Your task to perform on an android device: Do I have any events tomorrow? Image 0: 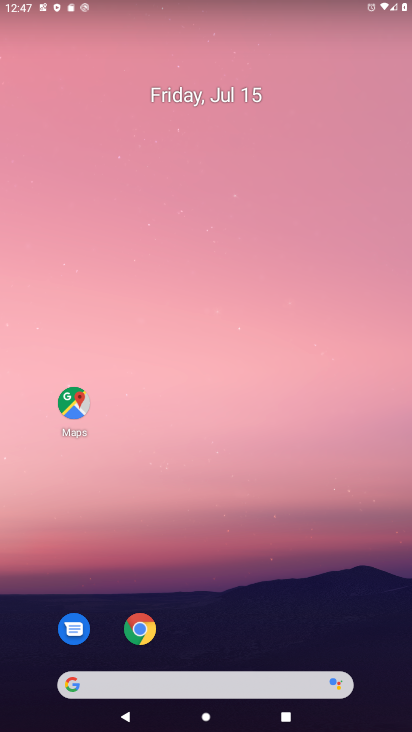
Step 0: press home button
Your task to perform on an android device: Do I have any events tomorrow? Image 1: 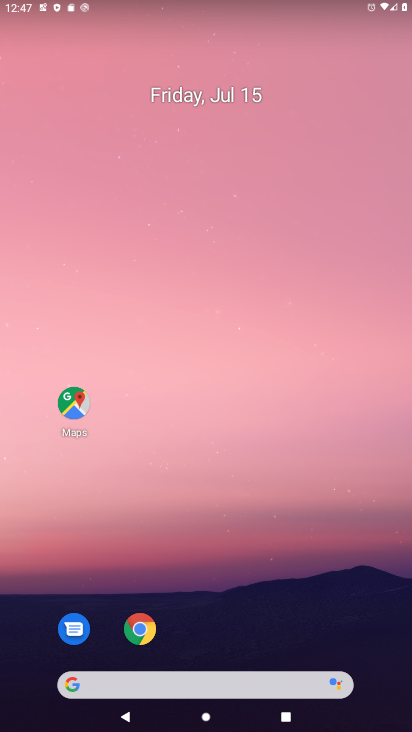
Step 1: drag from (247, 646) to (221, 191)
Your task to perform on an android device: Do I have any events tomorrow? Image 2: 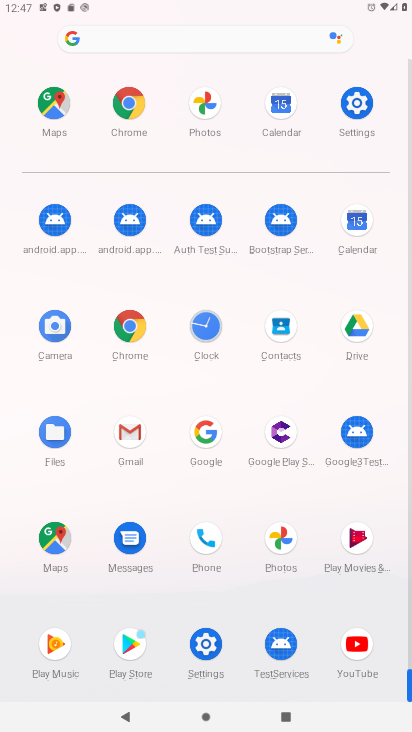
Step 2: click (360, 233)
Your task to perform on an android device: Do I have any events tomorrow? Image 3: 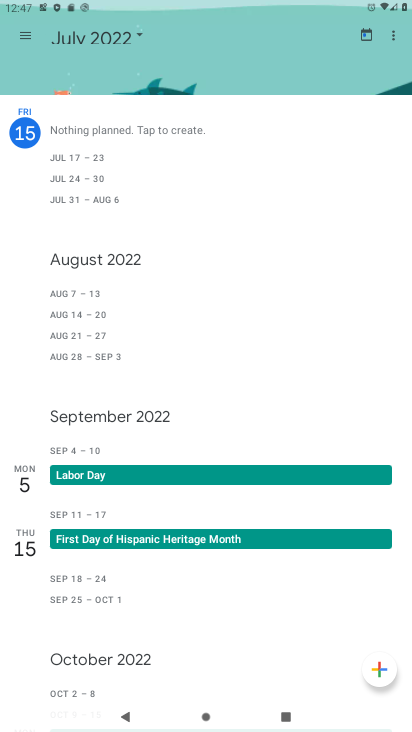
Step 3: click (136, 37)
Your task to perform on an android device: Do I have any events tomorrow? Image 4: 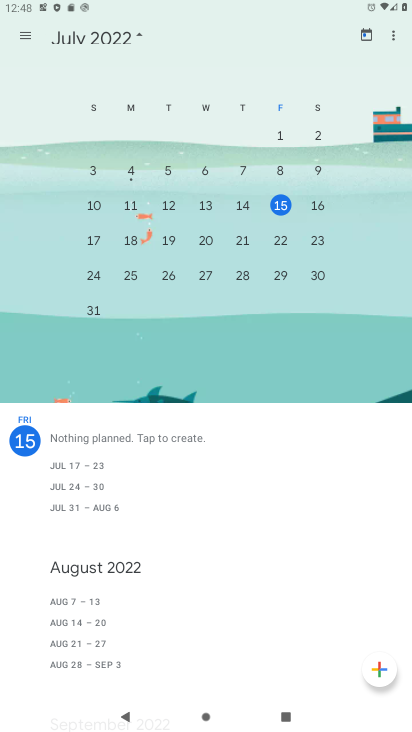
Step 4: click (319, 205)
Your task to perform on an android device: Do I have any events tomorrow? Image 5: 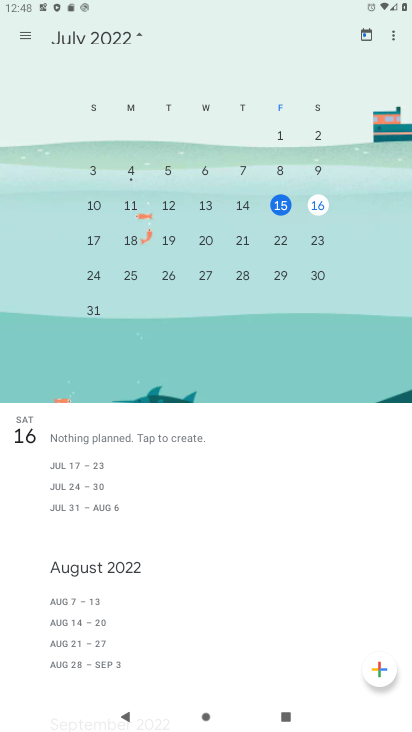
Step 5: task complete